Your task to perform on an android device: Set the phone to "Do not disturb". Image 0: 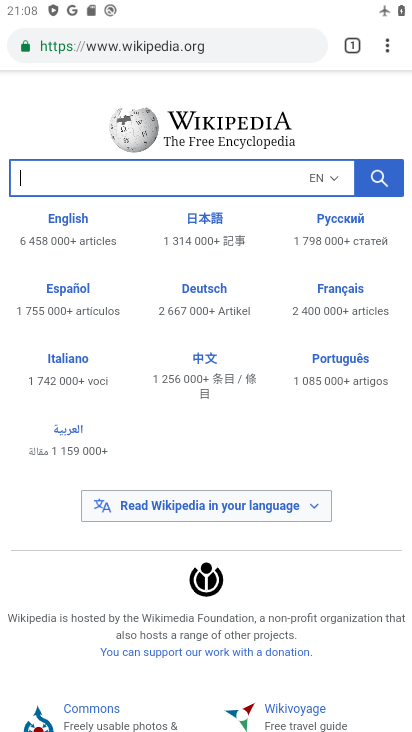
Step 0: press home button
Your task to perform on an android device: Set the phone to "Do not disturb". Image 1: 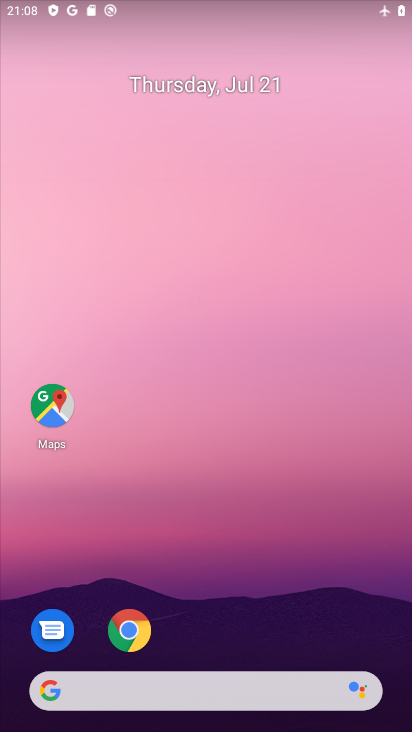
Step 1: drag from (154, 3) to (274, 526)
Your task to perform on an android device: Set the phone to "Do not disturb". Image 2: 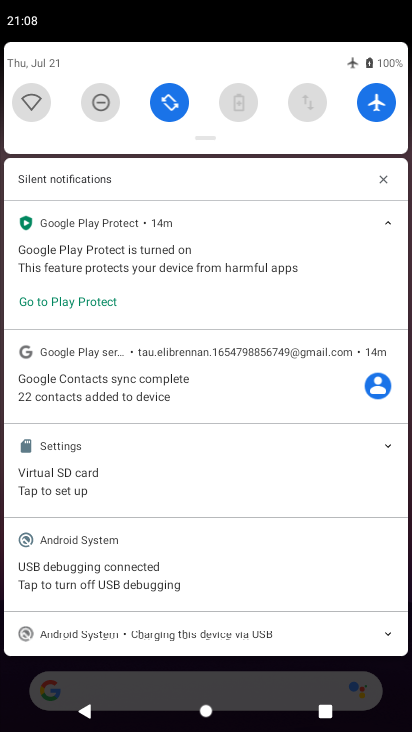
Step 2: click (102, 92)
Your task to perform on an android device: Set the phone to "Do not disturb". Image 3: 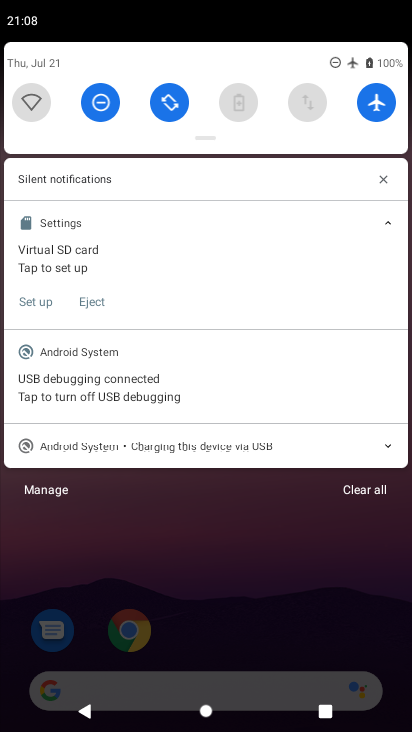
Step 3: task complete